Your task to perform on an android device: empty trash in the gmail app Image 0: 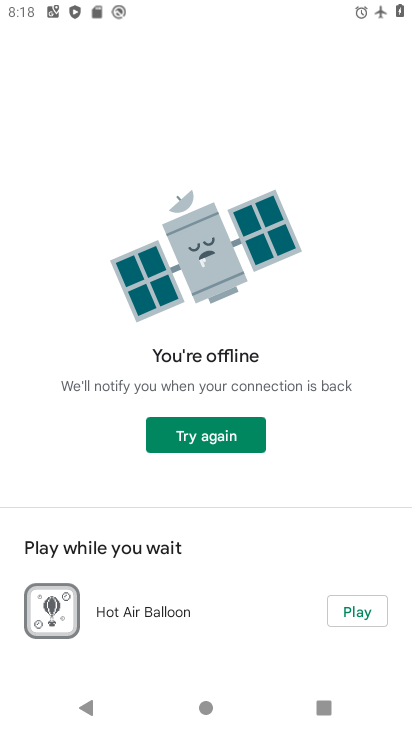
Step 0: press home button
Your task to perform on an android device: empty trash in the gmail app Image 1: 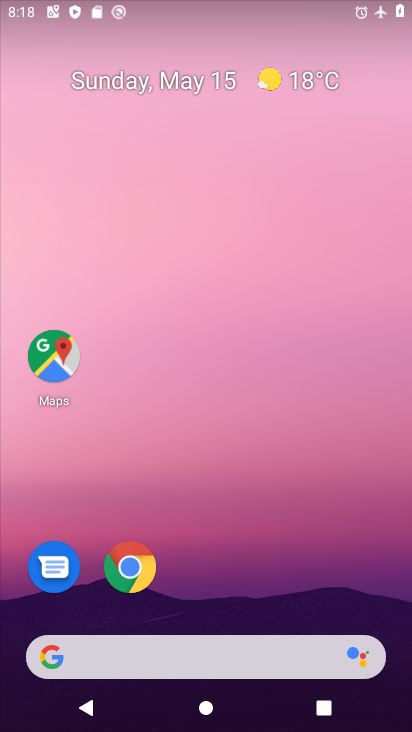
Step 1: drag from (153, 700) to (149, 197)
Your task to perform on an android device: empty trash in the gmail app Image 2: 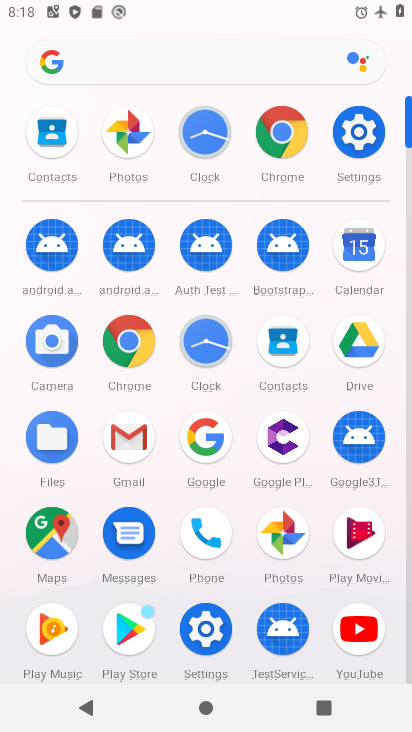
Step 2: click (120, 443)
Your task to perform on an android device: empty trash in the gmail app Image 3: 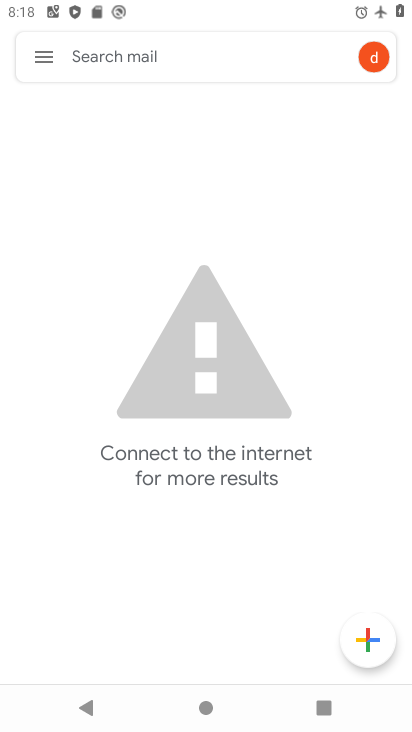
Step 3: task complete